Your task to perform on an android device: When is my next meeting? Image 0: 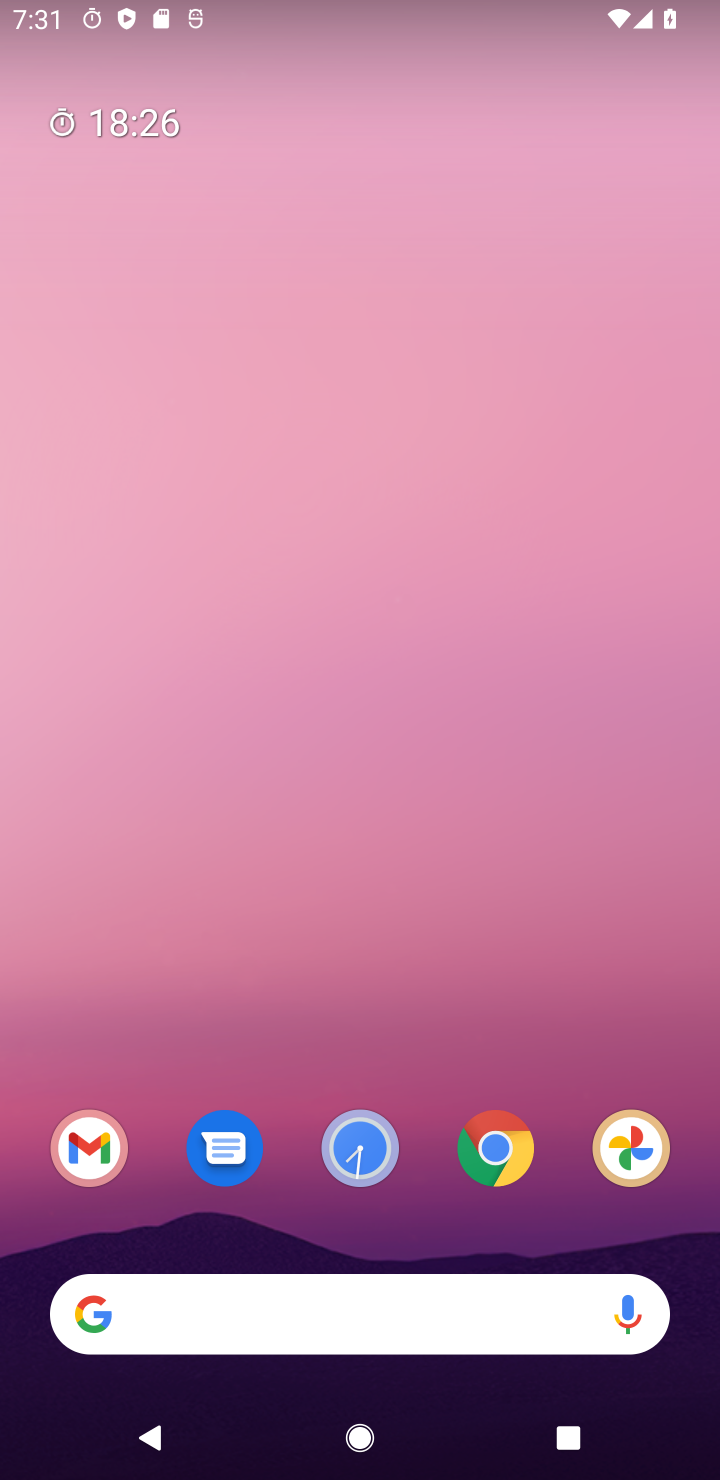
Step 0: press home button
Your task to perform on an android device: When is my next meeting? Image 1: 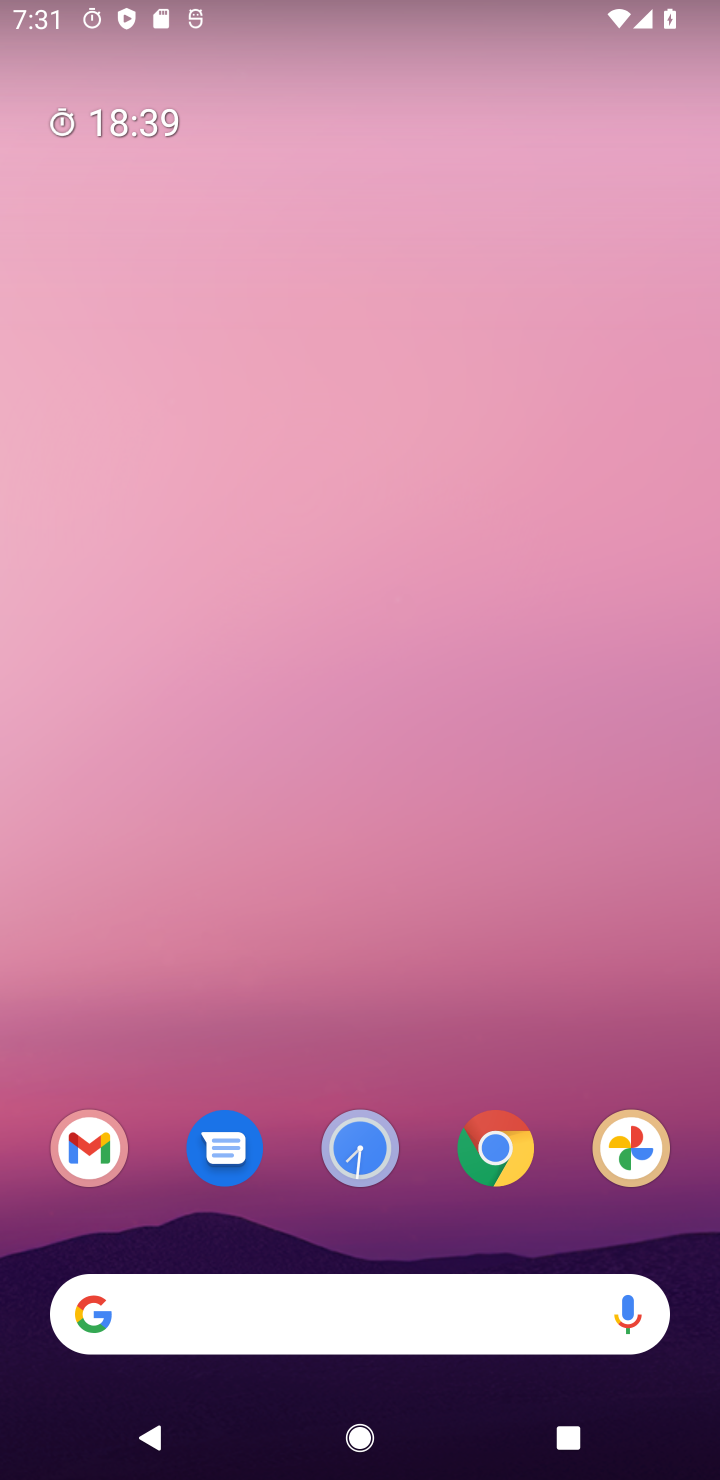
Step 1: drag from (381, 1194) to (134, 322)
Your task to perform on an android device: When is my next meeting? Image 2: 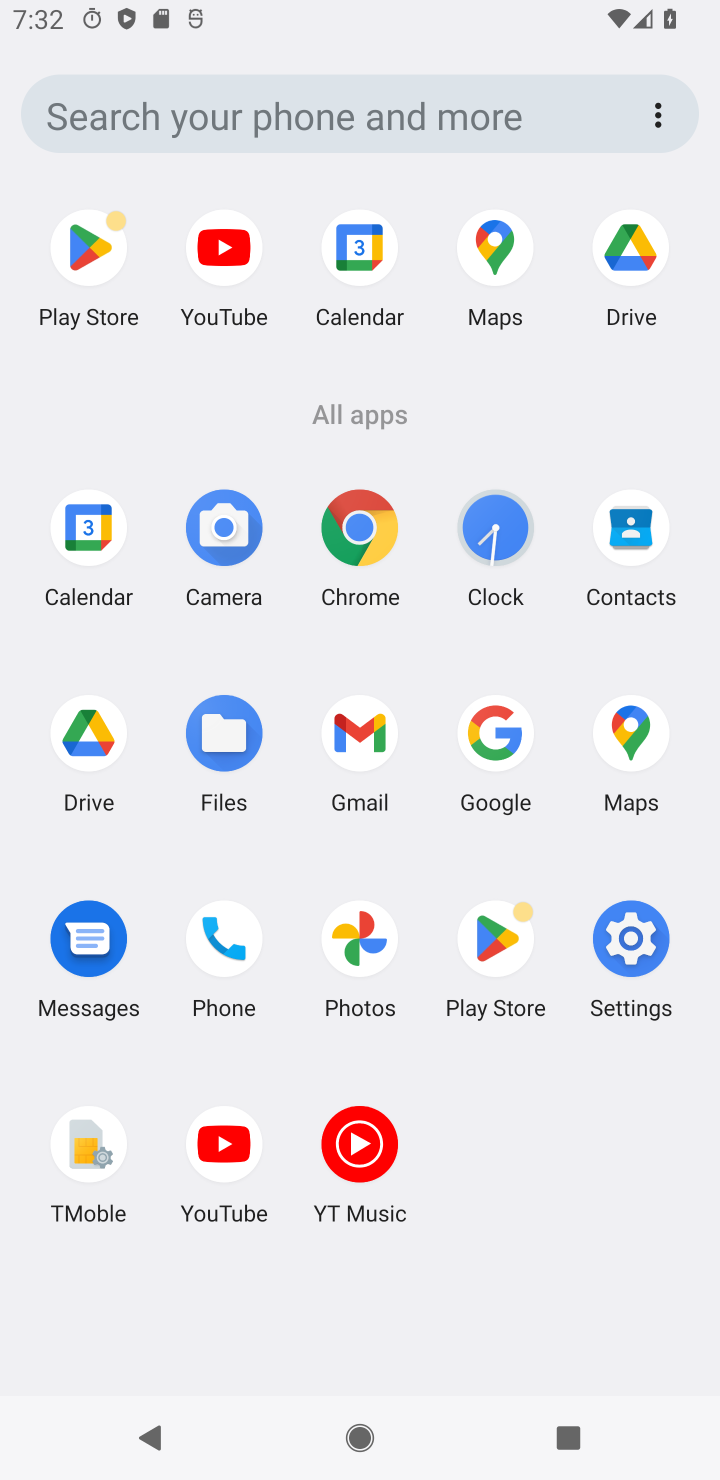
Step 2: click (346, 249)
Your task to perform on an android device: When is my next meeting? Image 3: 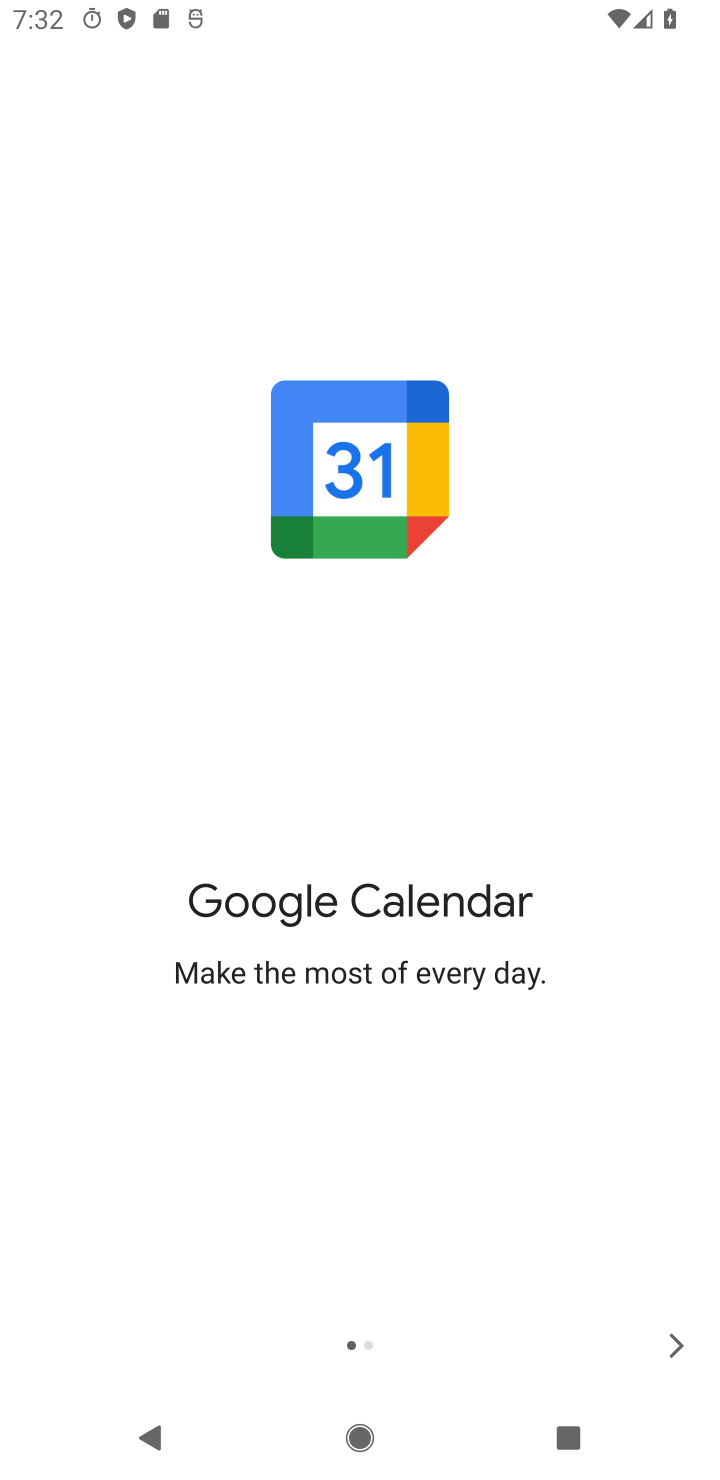
Step 3: click (697, 1348)
Your task to perform on an android device: When is my next meeting? Image 4: 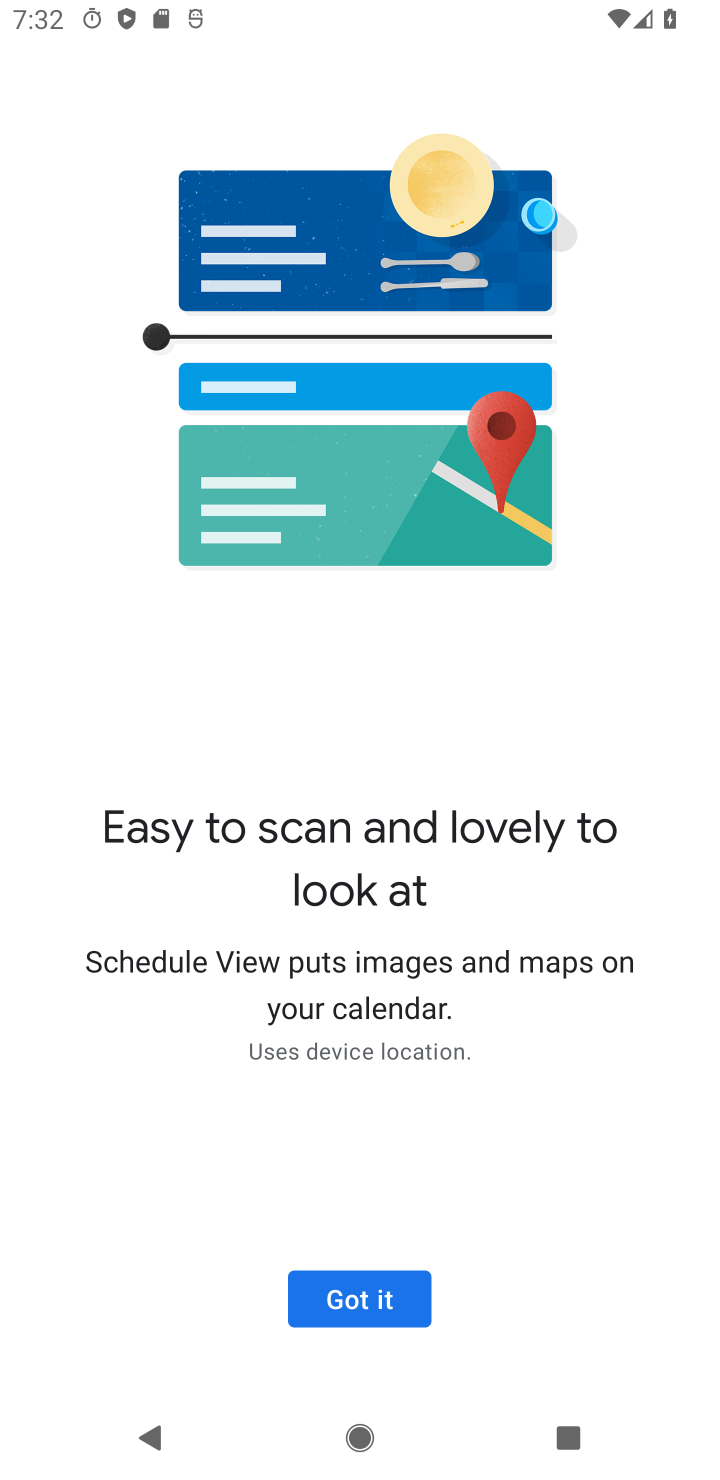
Step 4: click (338, 1314)
Your task to perform on an android device: When is my next meeting? Image 5: 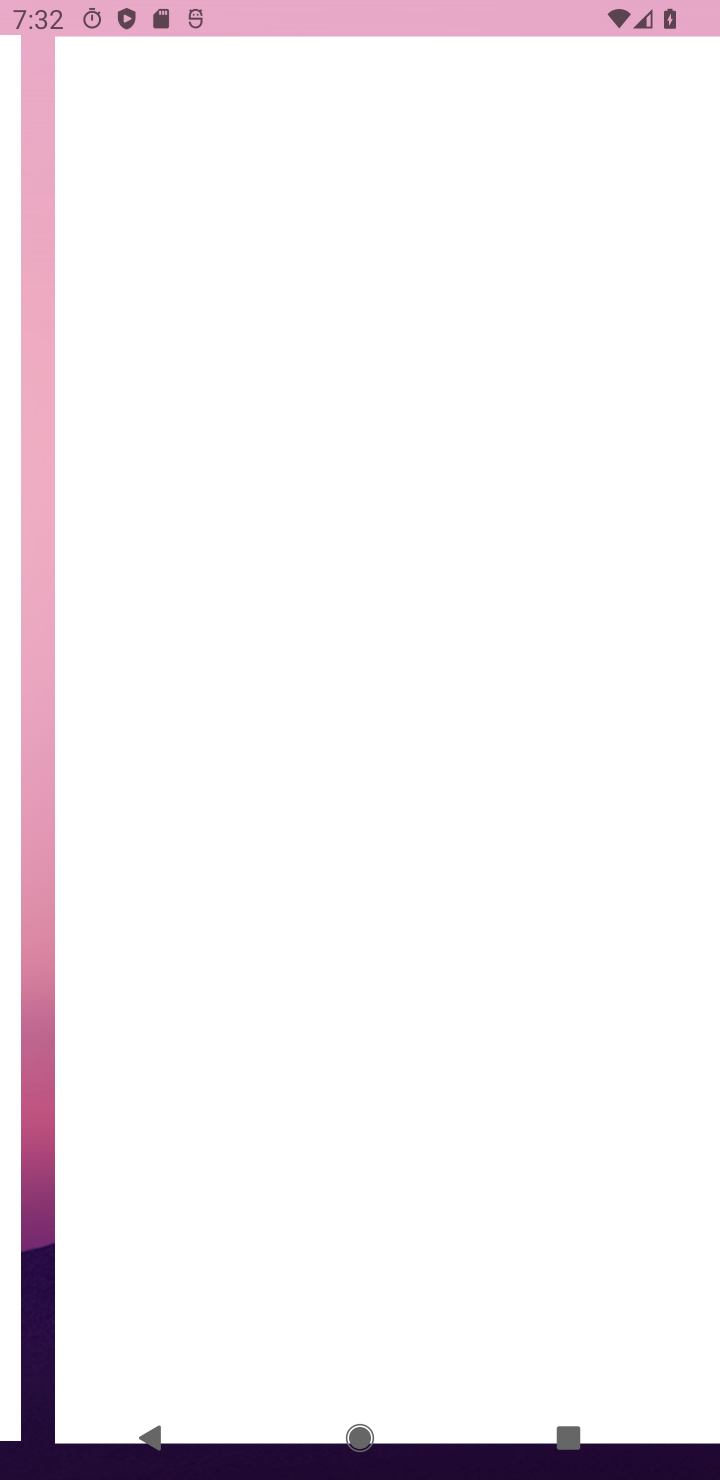
Step 5: click (337, 1317)
Your task to perform on an android device: When is my next meeting? Image 6: 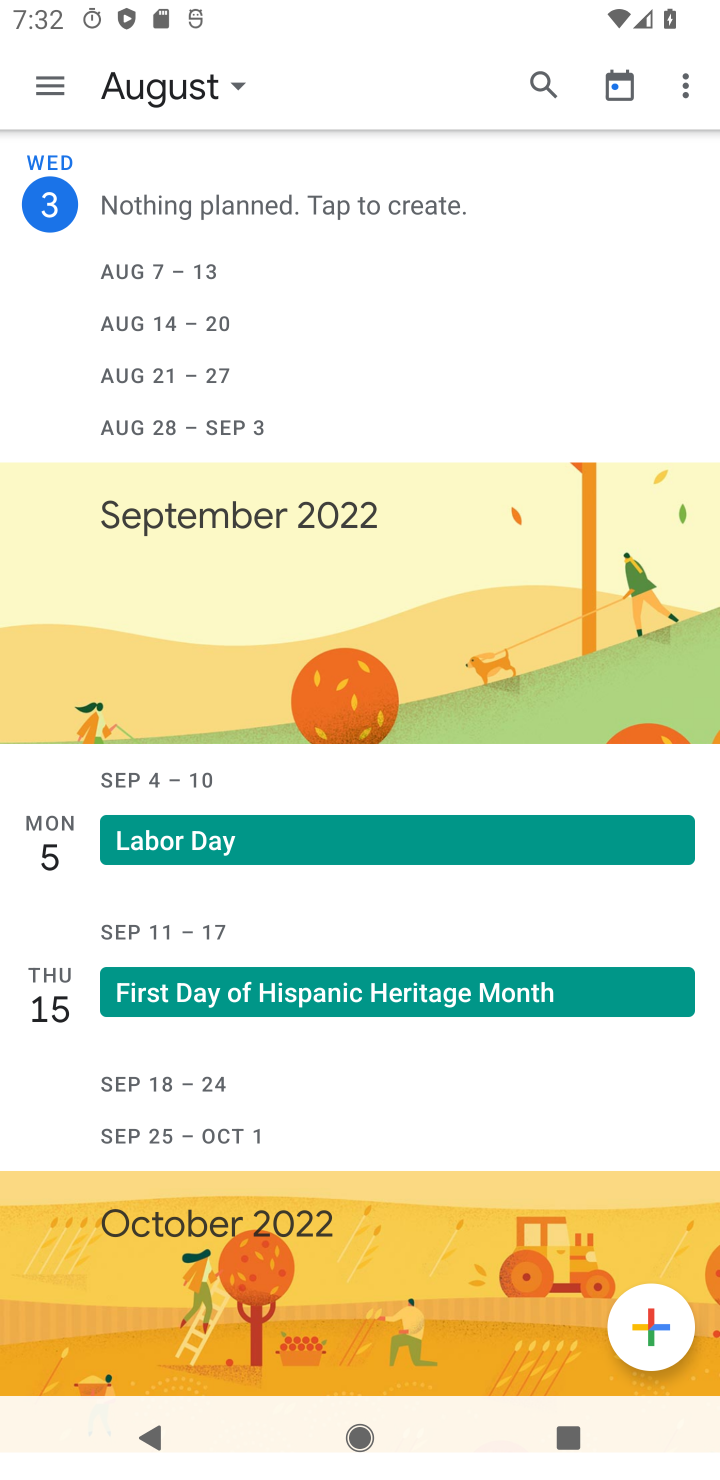
Step 6: click (200, 105)
Your task to perform on an android device: When is my next meeting? Image 7: 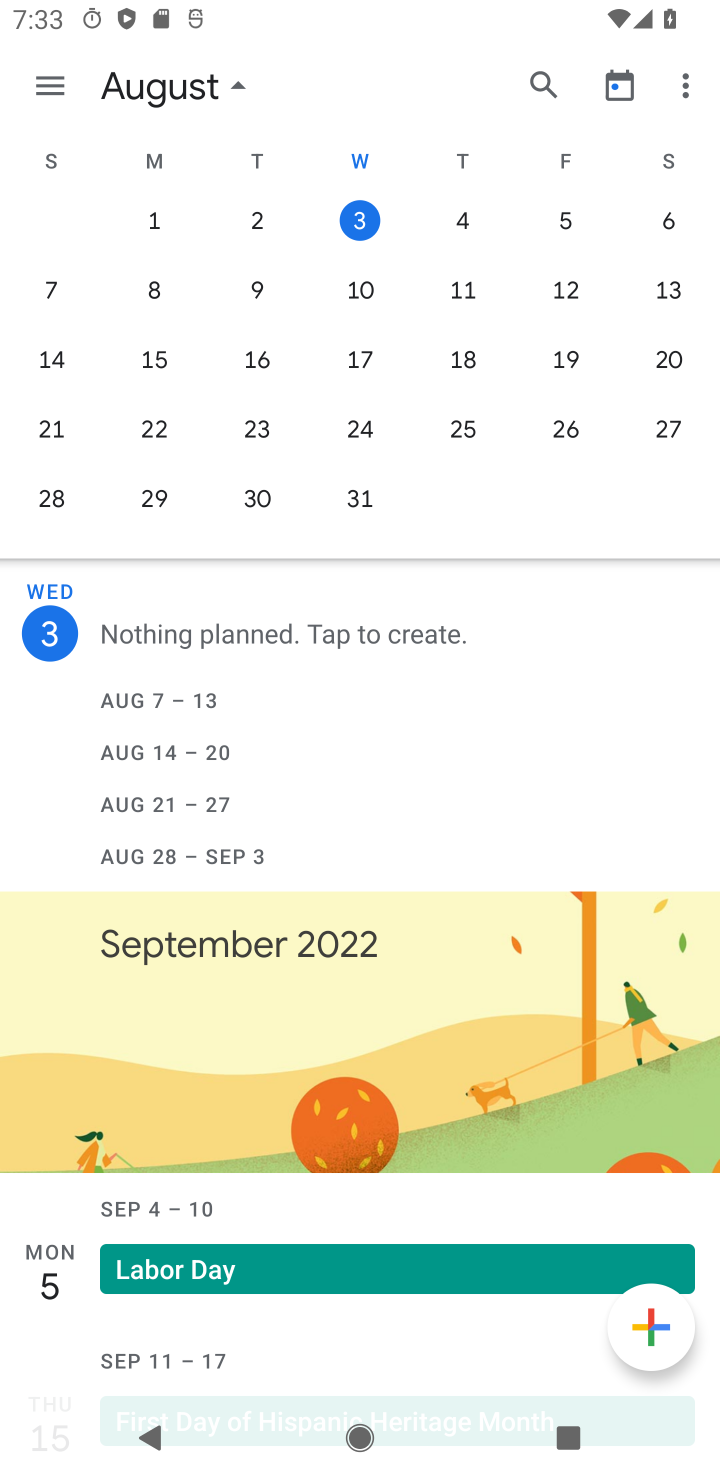
Step 7: drag from (81, 261) to (584, 142)
Your task to perform on an android device: When is my next meeting? Image 8: 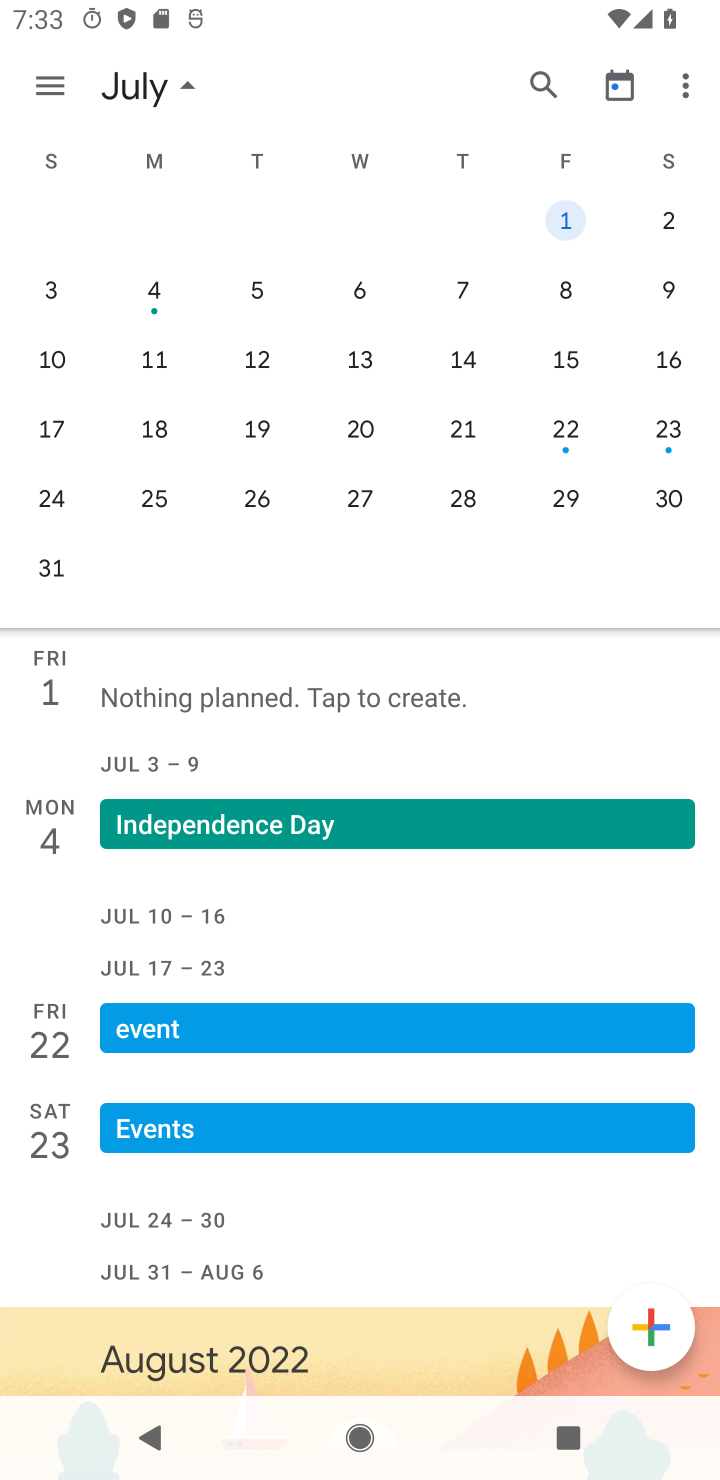
Step 8: drag from (577, 388) to (0, 698)
Your task to perform on an android device: When is my next meeting? Image 9: 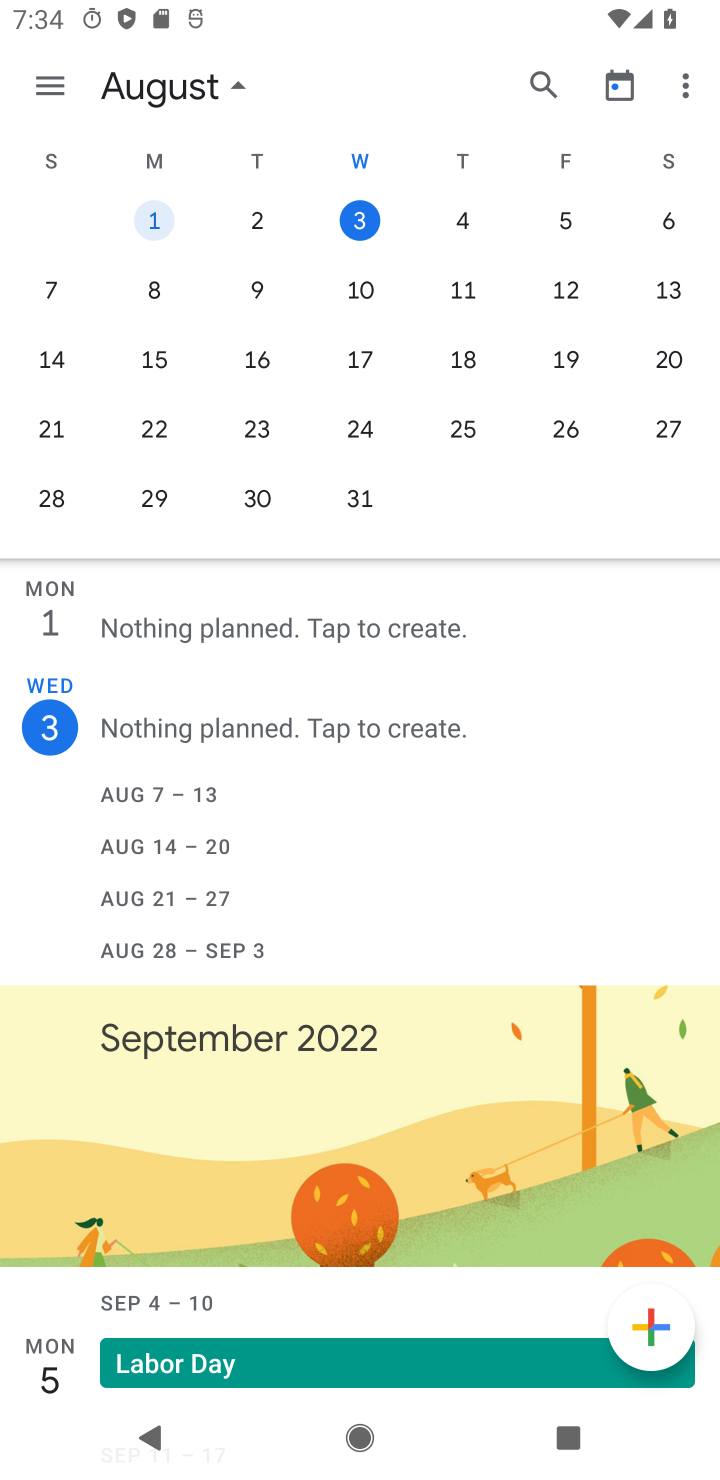
Step 9: click (345, 209)
Your task to perform on an android device: When is my next meeting? Image 10: 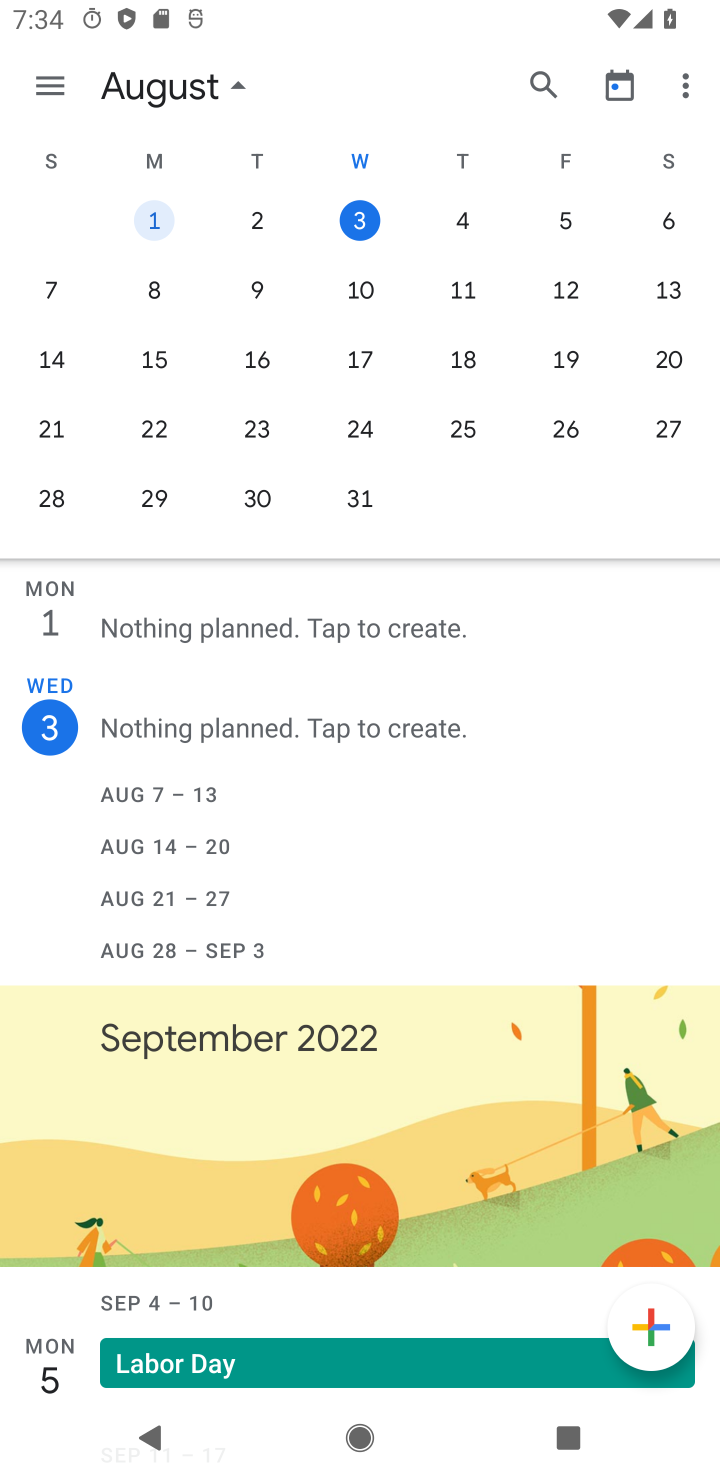
Step 10: task complete